Your task to perform on an android device: toggle sleep mode Image 0: 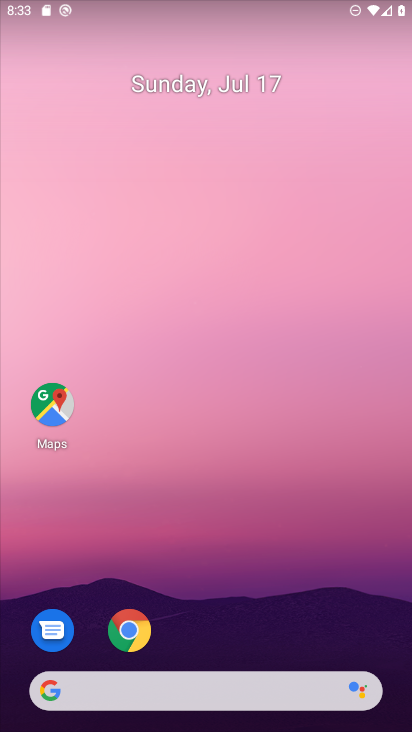
Step 0: drag from (395, 663) to (240, 2)
Your task to perform on an android device: toggle sleep mode Image 1: 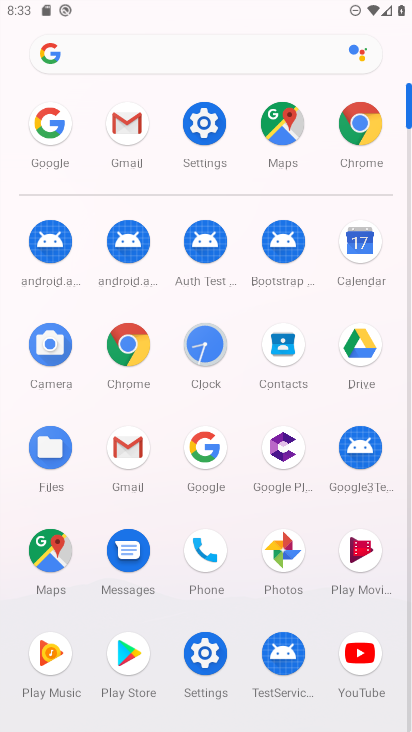
Step 1: click (212, 110)
Your task to perform on an android device: toggle sleep mode Image 2: 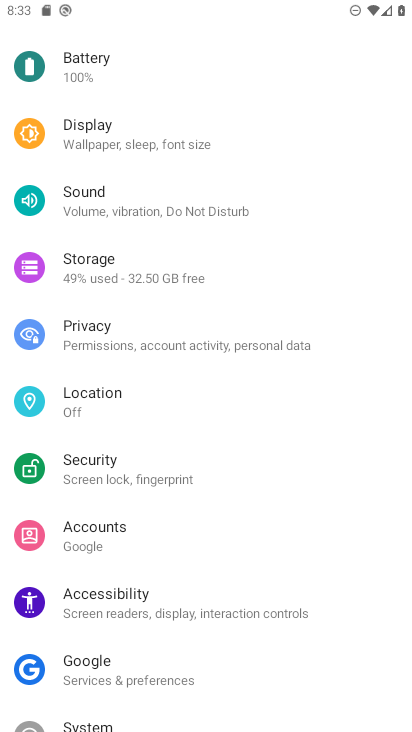
Step 2: task complete